Your task to perform on an android device: Open ESPN.com Image 0: 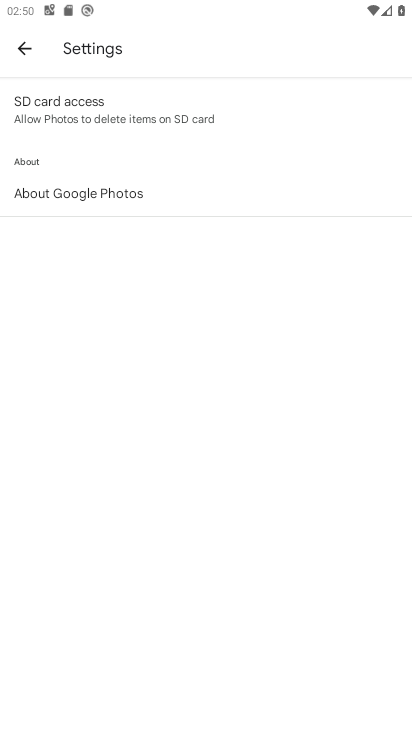
Step 0: press home button
Your task to perform on an android device: Open ESPN.com Image 1: 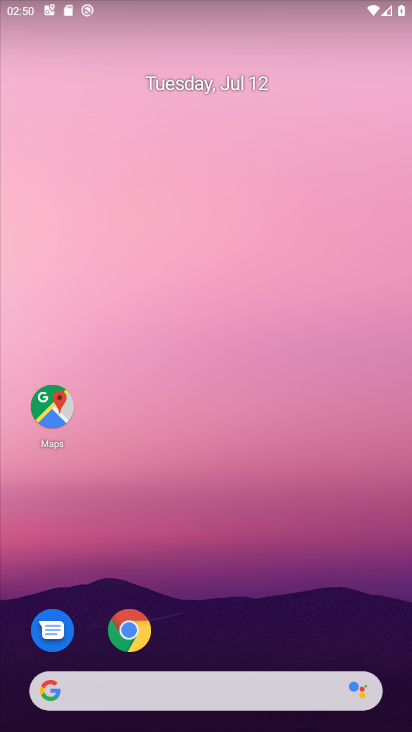
Step 1: click (129, 631)
Your task to perform on an android device: Open ESPN.com Image 2: 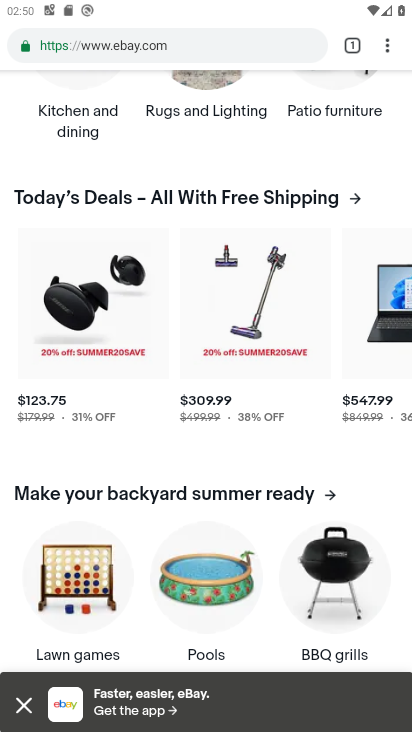
Step 2: click (200, 40)
Your task to perform on an android device: Open ESPN.com Image 3: 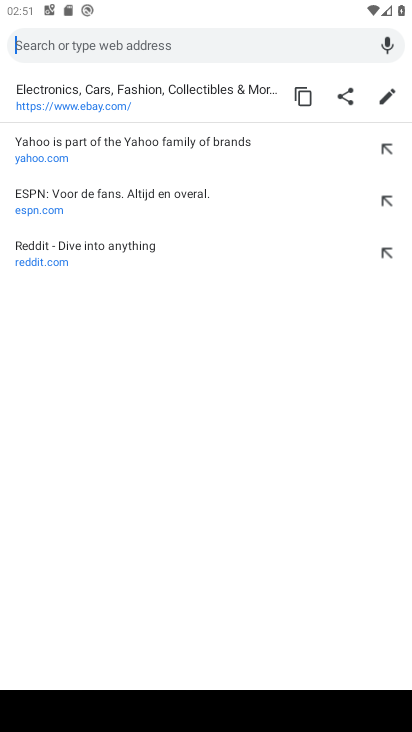
Step 3: type "espn.com"
Your task to perform on an android device: Open ESPN.com Image 4: 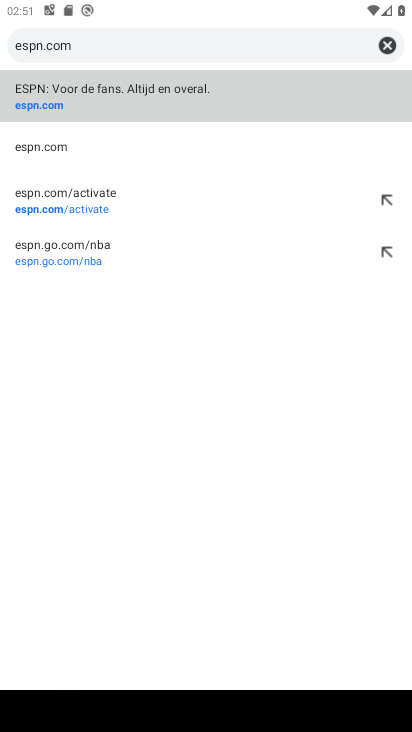
Step 4: click (42, 94)
Your task to perform on an android device: Open ESPN.com Image 5: 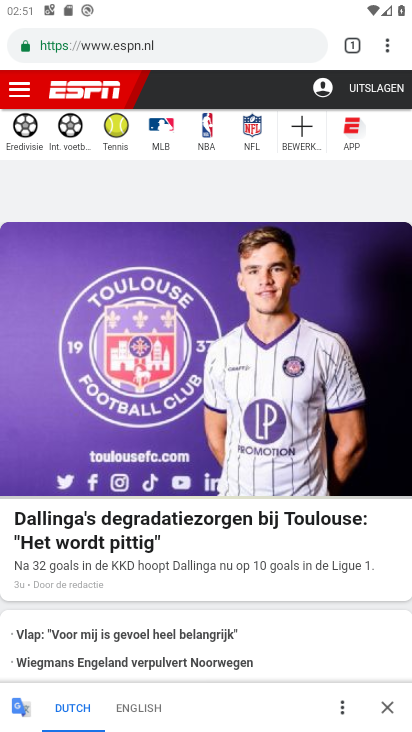
Step 5: task complete